Your task to perform on an android device: change the upload size in google photos Image 0: 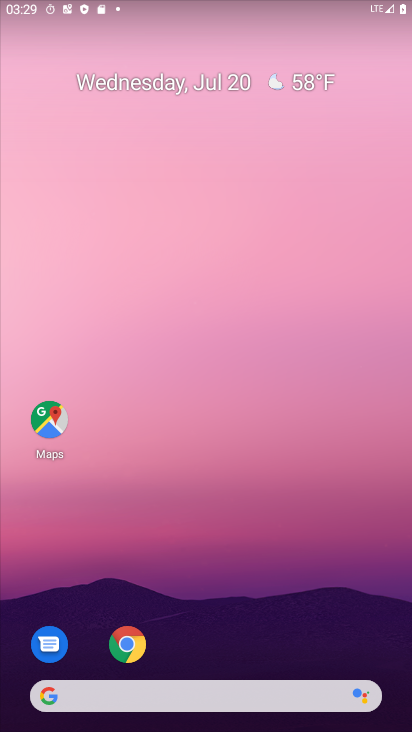
Step 0: drag from (113, 507) to (248, 261)
Your task to perform on an android device: change the upload size in google photos Image 1: 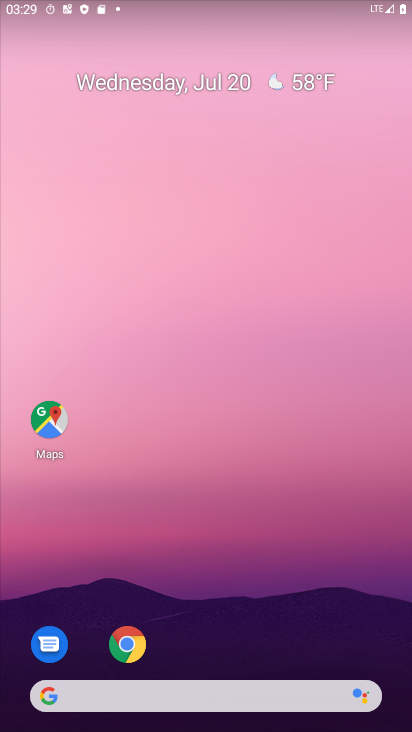
Step 1: drag from (27, 696) to (234, 95)
Your task to perform on an android device: change the upload size in google photos Image 2: 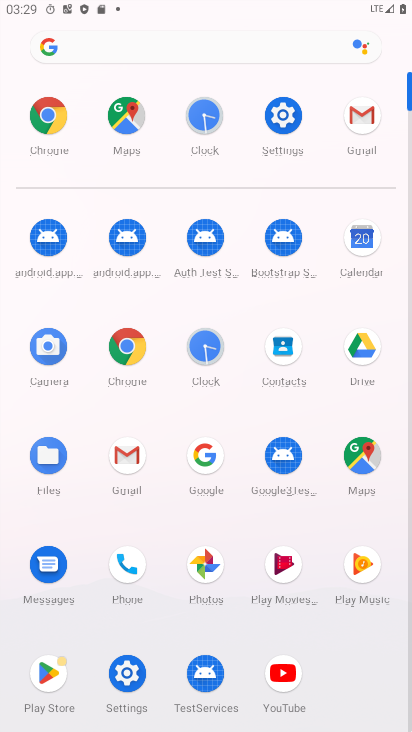
Step 2: click (209, 569)
Your task to perform on an android device: change the upload size in google photos Image 3: 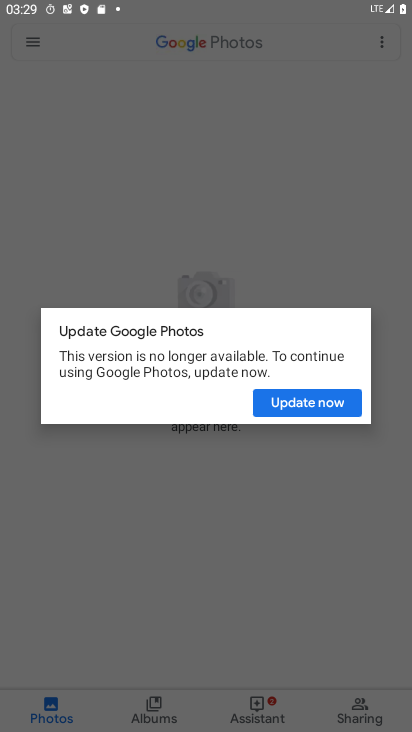
Step 3: click (155, 599)
Your task to perform on an android device: change the upload size in google photos Image 4: 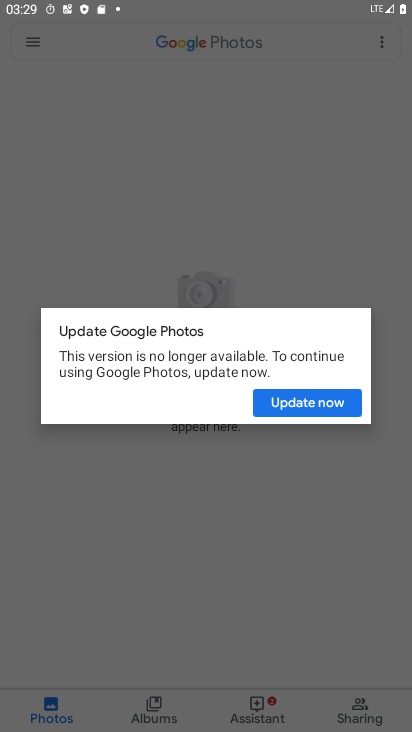
Step 4: click (279, 404)
Your task to perform on an android device: change the upload size in google photos Image 5: 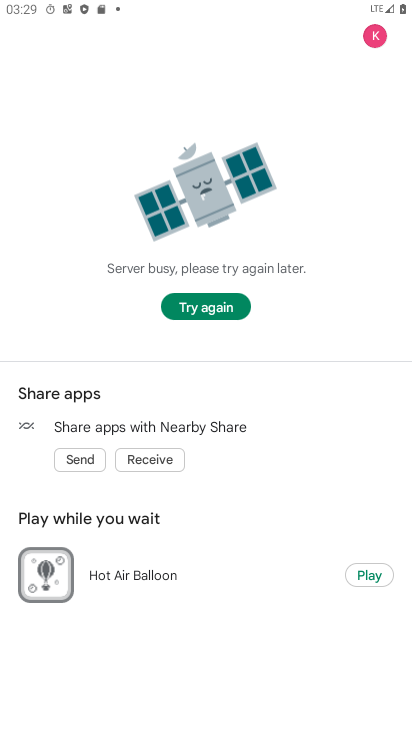
Step 5: task complete